Your task to perform on an android device: toggle pop-ups in chrome Image 0: 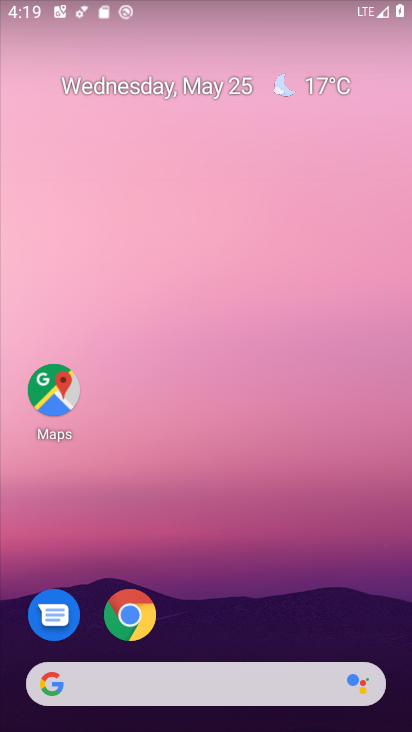
Step 0: click (131, 615)
Your task to perform on an android device: toggle pop-ups in chrome Image 1: 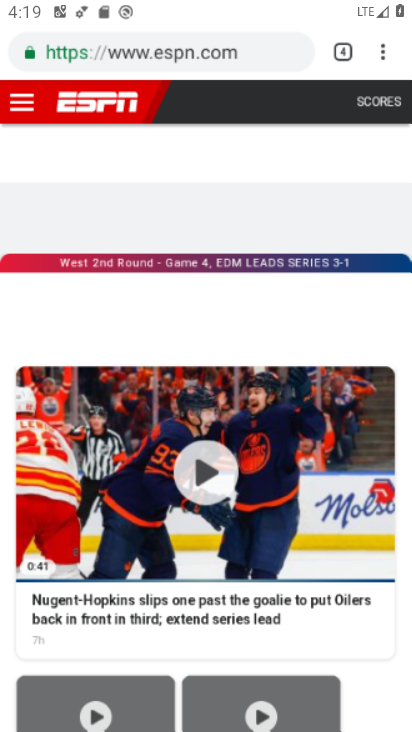
Step 1: click (376, 46)
Your task to perform on an android device: toggle pop-ups in chrome Image 2: 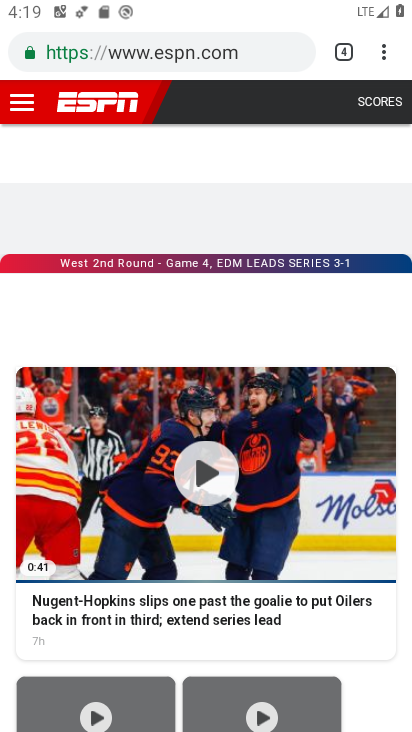
Step 2: click (385, 59)
Your task to perform on an android device: toggle pop-ups in chrome Image 3: 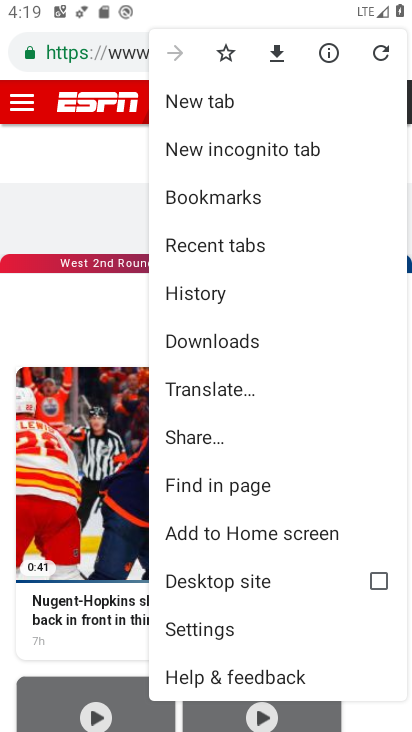
Step 3: click (235, 610)
Your task to perform on an android device: toggle pop-ups in chrome Image 4: 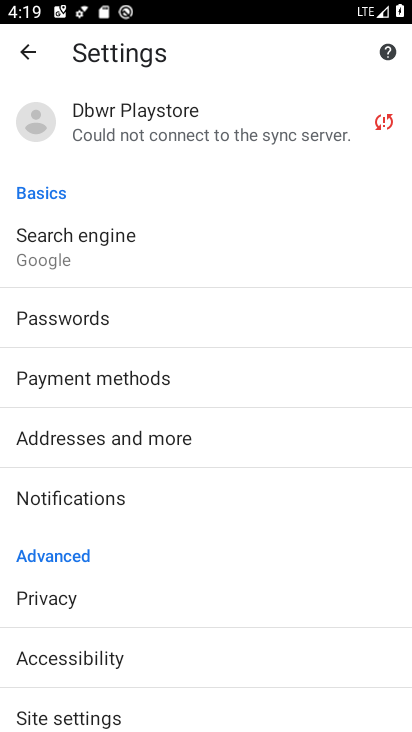
Step 4: drag from (249, 530) to (257, 123)
Your task to perform on an android device: toggle pop-ups in chrome Image 5: 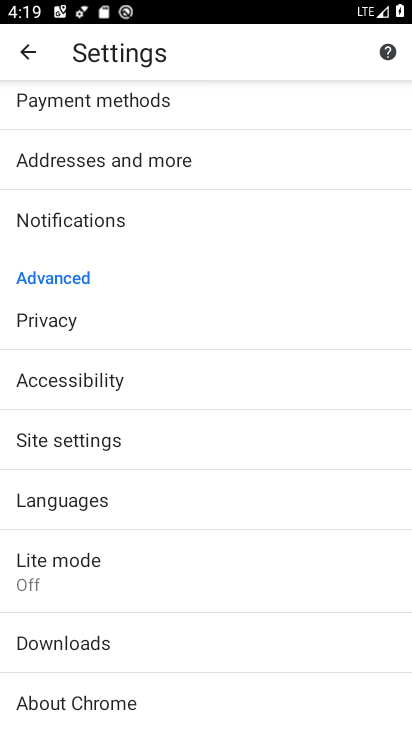
Step 5: click (155, 424)
Your task to perform on an android device: toggle pop-ups in chrome Image 6: 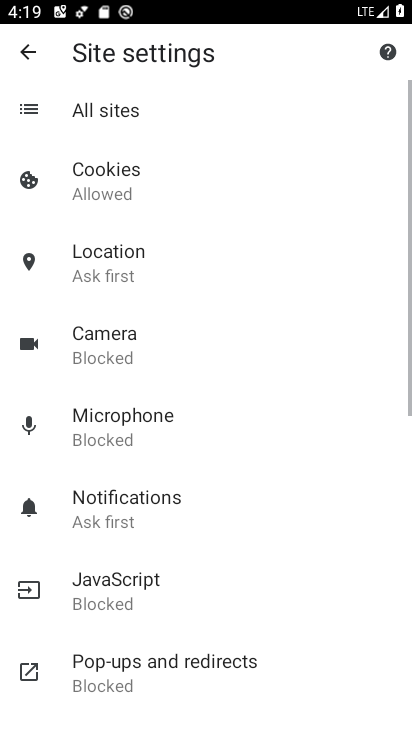
Step 6: click (169, 666)
Your task to perform on an android device: toggle pop-ups in chrome Image 7: 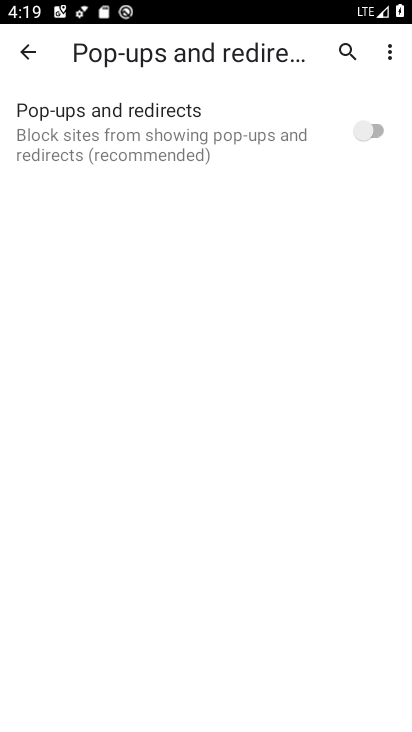
Step 7: click (366, 123)
Your task to perform on an android device: toggle pop-ups in chrome Image 8: 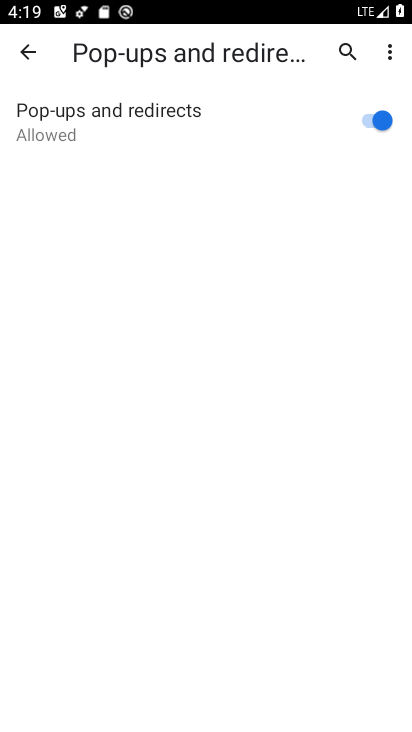
Step 8: task complete